Your task to perform on an android device: Go to Wikipedia Image 0: 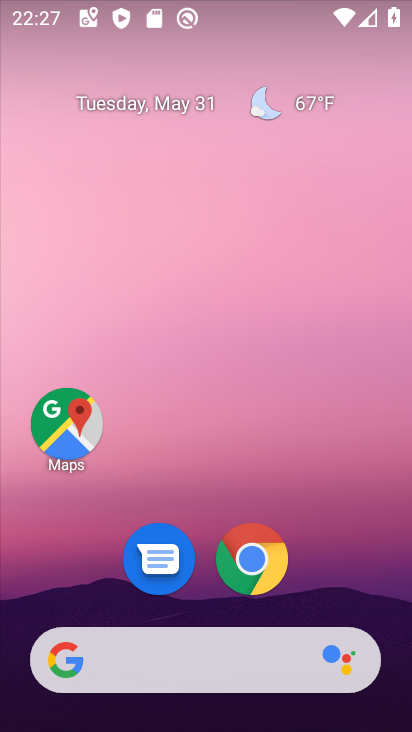
Step 0: drag from (334, 580) to (328, 31)
Your task to perform on an android device: Go to Wikipedia Image 1: 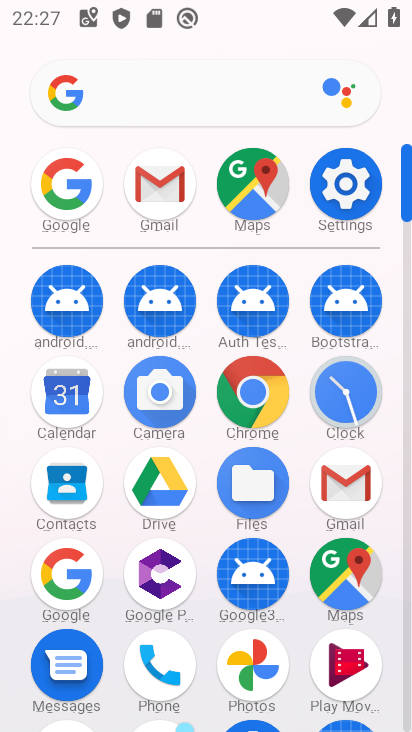
Step 1: click (243, 383)
Your task to perform on an android device: Go to Wikipedia Image 2: 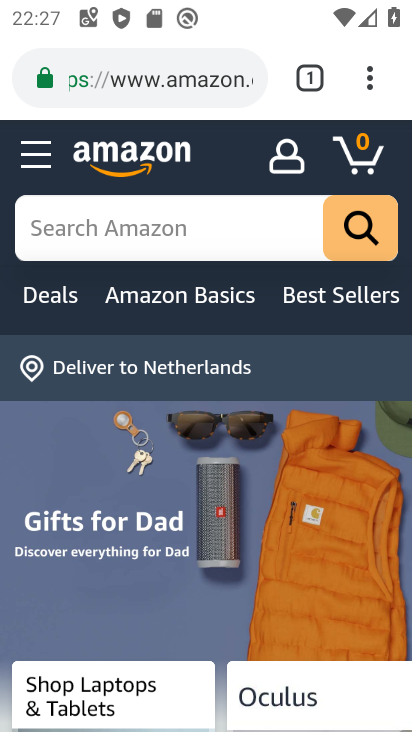
Step 2: press back button
Your task to perform on an android device: Go to Wikipedia Image 3: 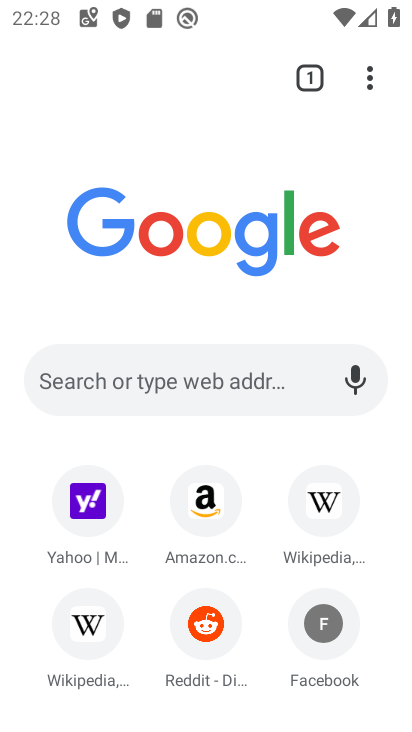
Step 3: click (323, 508)
Your task to perform on an android device: Go to Wikipedia Image 4: 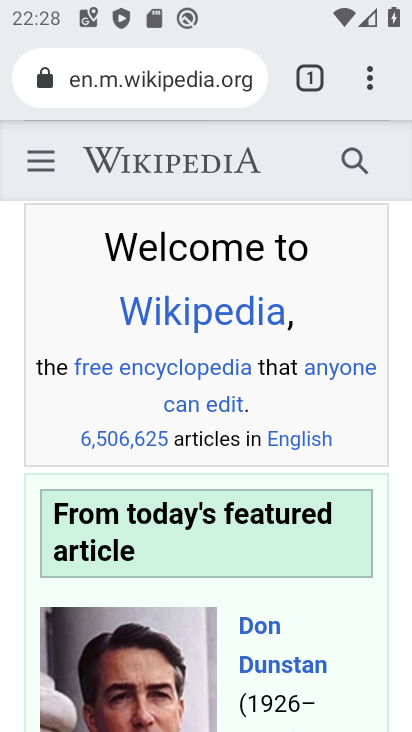
Step 4: task complete